Your task to perform on an android device: Open Chrome and go to the settings page Image 0: 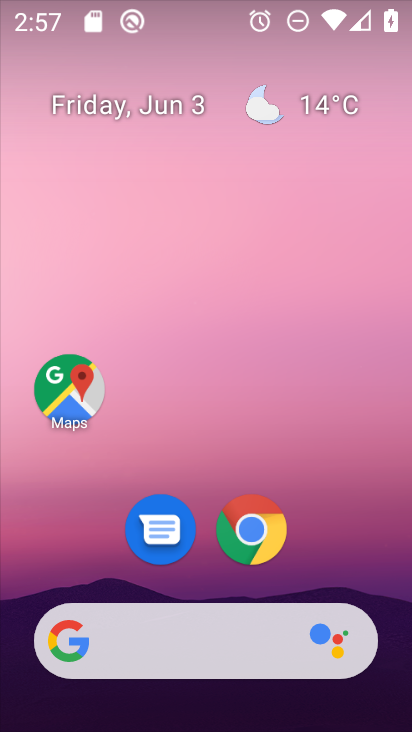
Step 0: drag from (361, 567) to (359, 215)
Your task to perform on an android device: Open Chrome and go to the settings page Image 1: 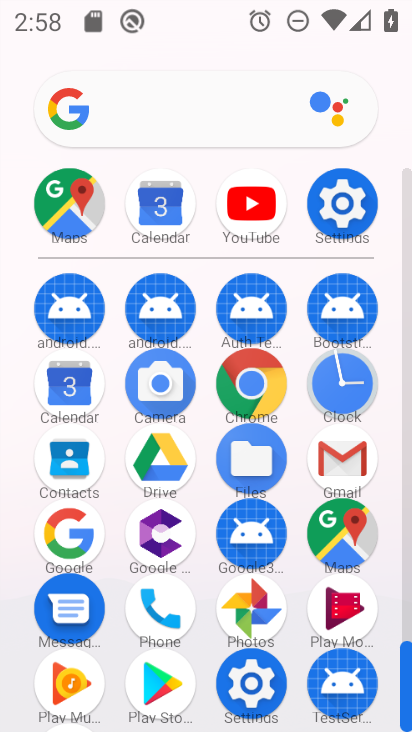
Step 1: click (270, 387)
Your task to perform on an android device: Open Chrome and go to the settings page Image 2: 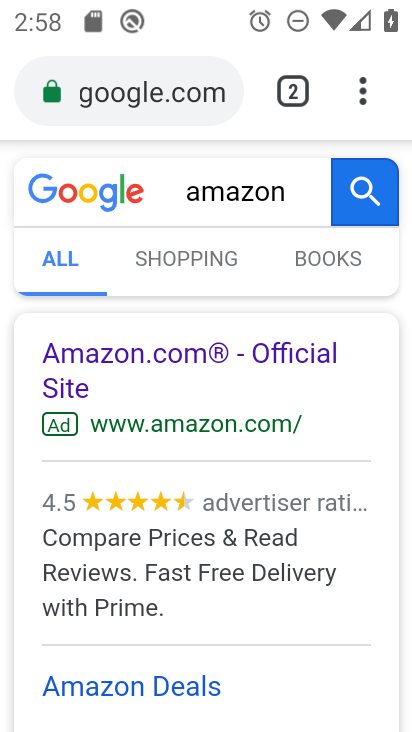
Step 2: click (367, 103)
Your task to perform on an android device: Open Chrome and go to the settings page Image 3: 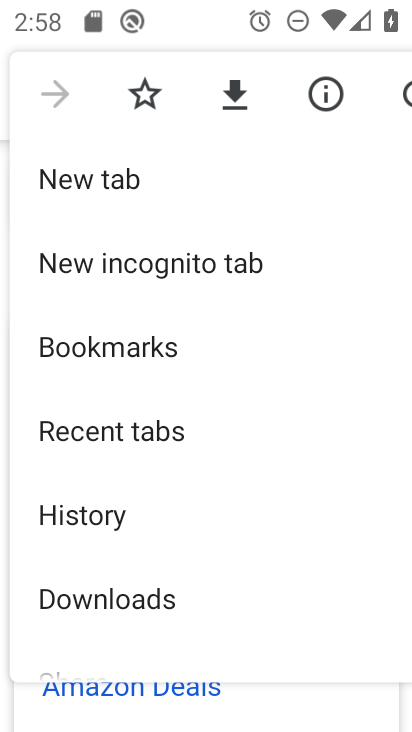
Step 3: drag from (285, 433) to (289, 272)
Your task to perform on an android device: Open Chrome and go to the settings page Image 4: 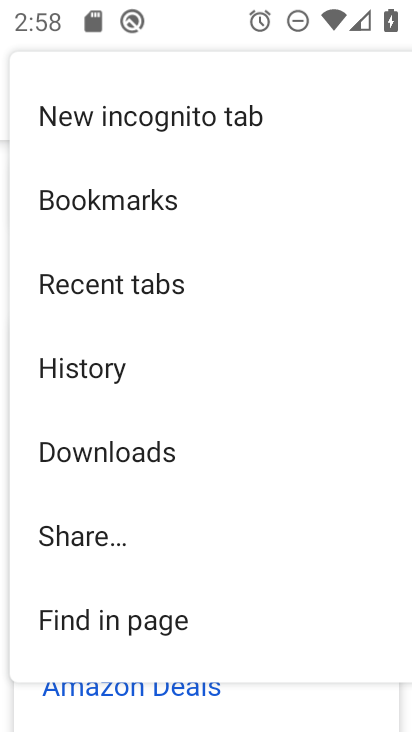
Step 4: drag from (286, 446) to (305, 296)
Your task to perform on an android device: Open Chrome and go to the settings page Image 5: 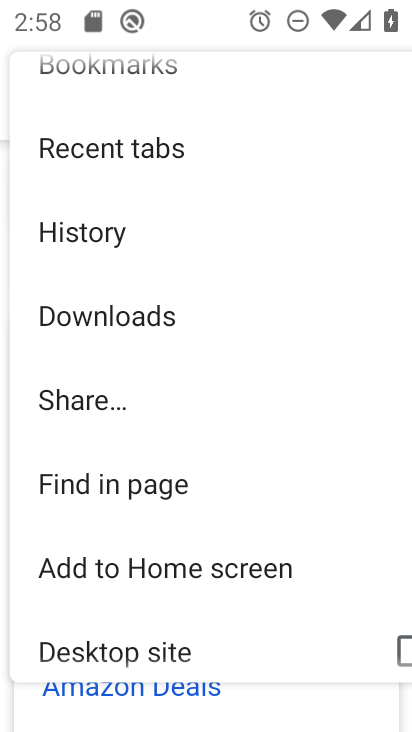
Step 5: drag from (294, 452) to (291, 325)
Your task to perform on an android device: Open Chrome and go to the settings page Image 6: 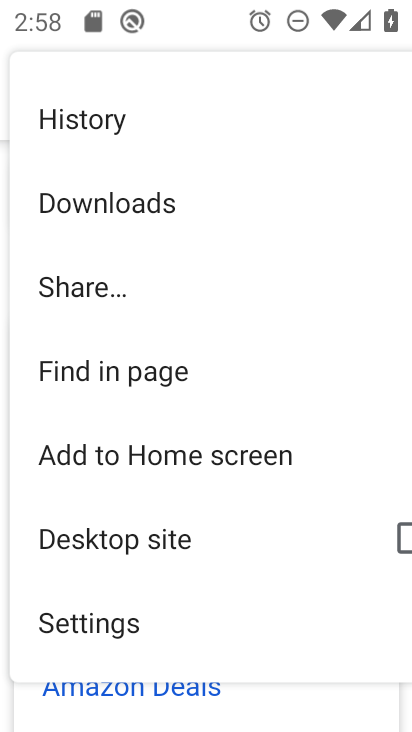
Step 6: drag from (295, 537) to (303, 372)
Your task to perform on an android device: Open Chrome and go to the settings page Image 7: 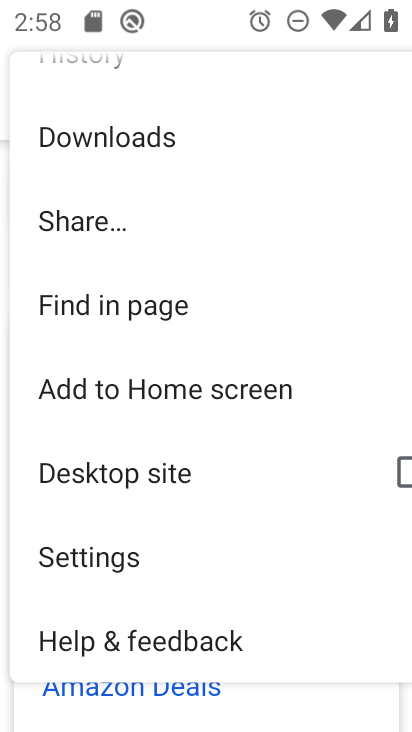
Step 7: click (157, 562)
Your task to perform on an android device: Open Chrome and go to the settings page Image 8: 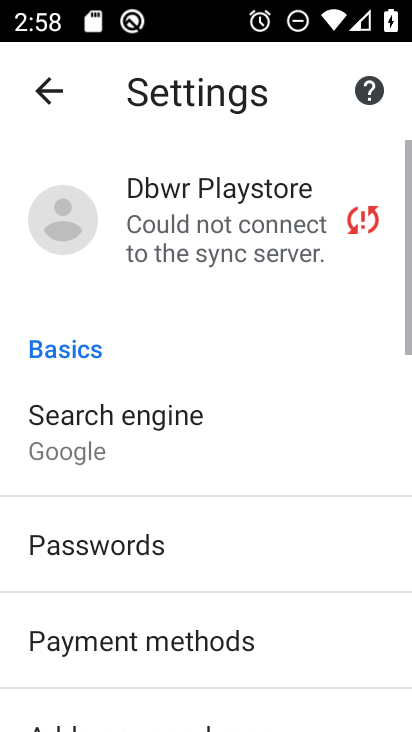
Step 8: task complete